Your task to perform on an android device: Open Google Maps and go to "Timeline" Image 0: 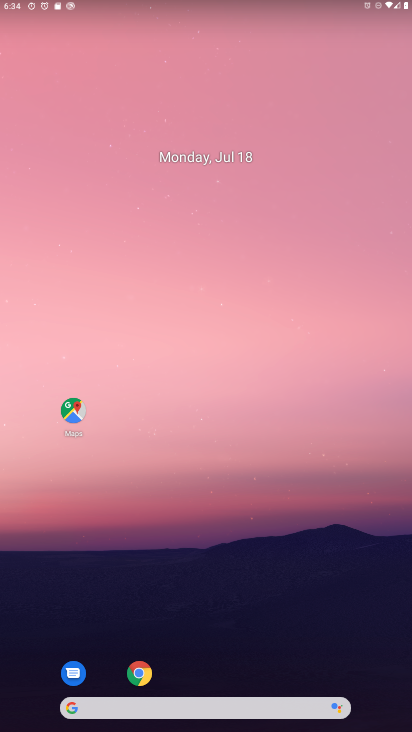
Step 0: click (69, 413)
Your task to perform on an android device: Open Google Maps and go to "Timeline" Image 1: 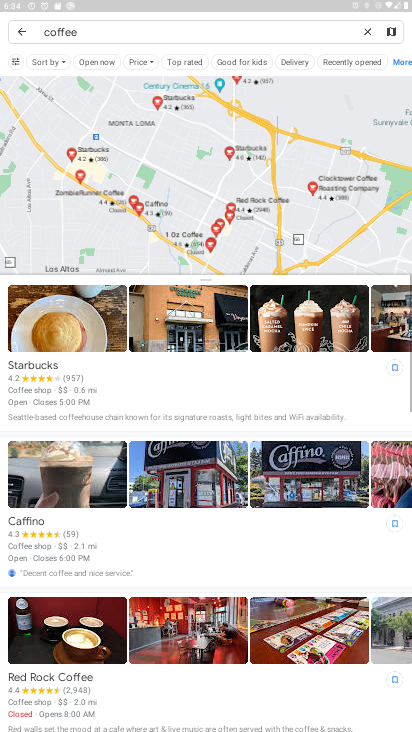
Step 1: click (22, 31)
Your task to perform on an android device: Open Google Maps and go to "Timeline" Image 2: 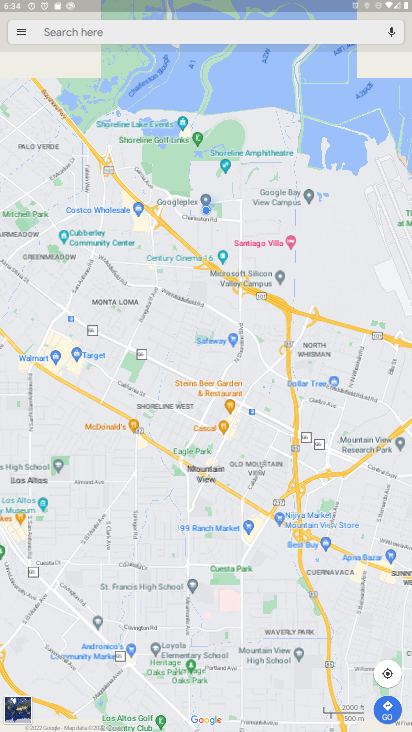
Step 2: click (22, 31)
Your task to perform on an android device: Open Google Maps and go to "Timeline" Image 3: 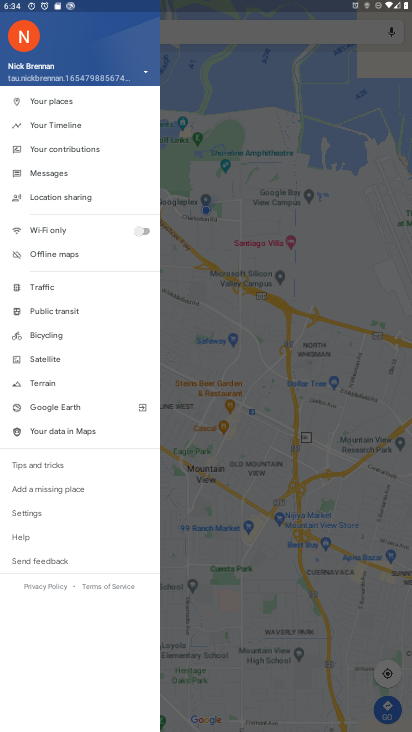
Step 3: click (69, 123)
Your task to perform on an android device: Open Google Maps and go to "Timeline" Image 4: 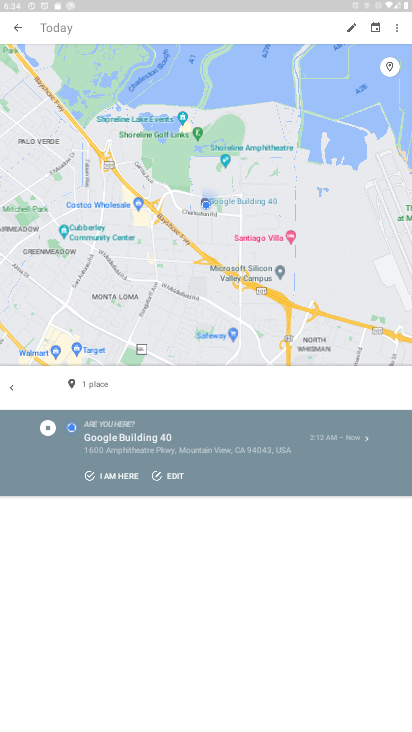
Step 4: task complete